Your task to perform on an android device: choose inbox layout in the gmail app Image 0: 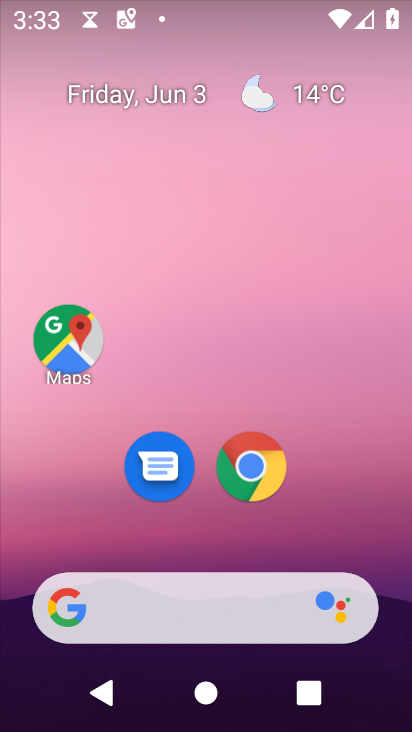
Step 0: drag from (301, 511) to (265, 124)
Your task to perform on an android device: choose inbox layout in the gmail app Image 1: 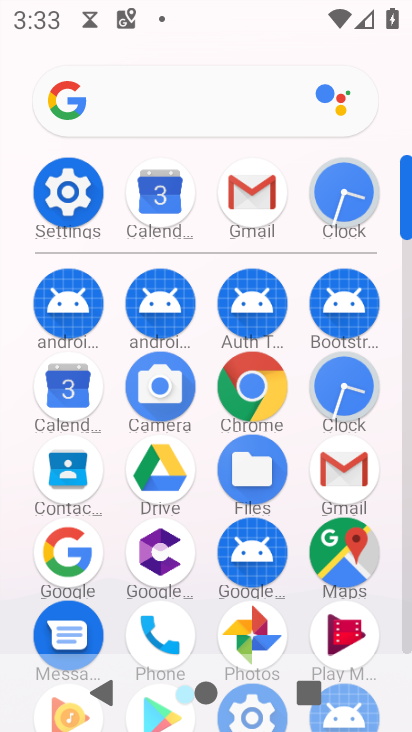
Step 1: click (248, 178)
Your task to perform on an android device: choose inbox layout in the gmail app Image 2: 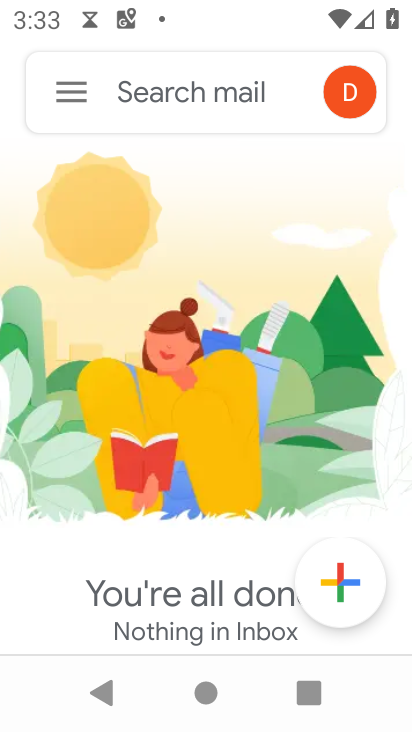
Step 2: click (80, 75)
Your task to perform on an android device: choose inbox layout in the gmail app Image 3: 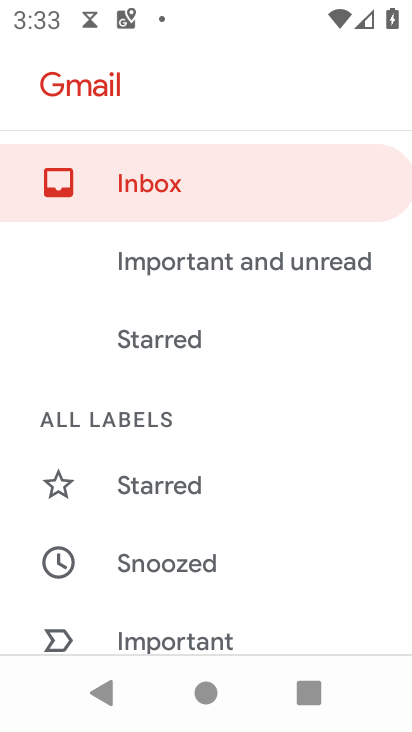
Step 3: click (246, 191)
Your task to perform on an android device: choose inbox layout in the gmail app Image 4: 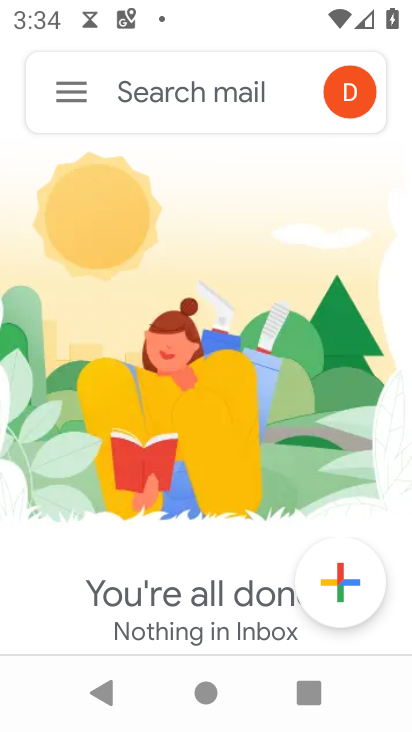
Step 4: click (83, 82)
Your task to perform on an android device: choose inbox layout in the gmail app Image 5: 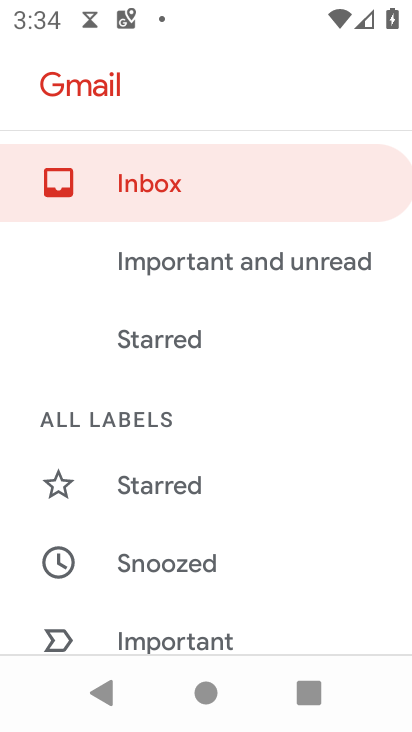
Step 5: drag from (287, 622) to (265, 295)
Your task to perform on an android device: choose inbox layout in the gmail app Image 6: 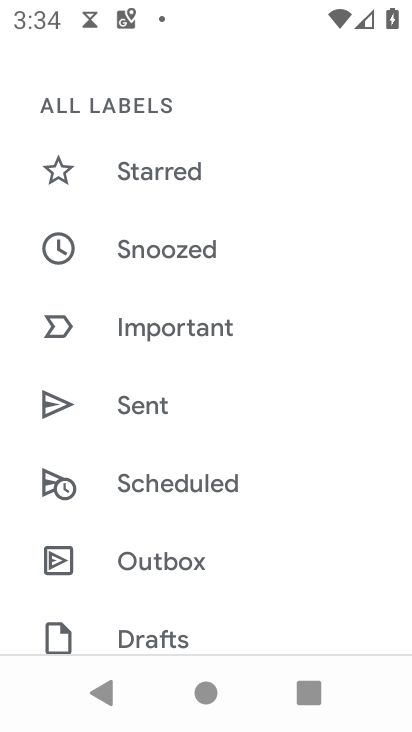
Step 6: drag from (266, 523) to (260, 11)
Your task to perform on an android device: choose inbox layout in the gmail app Image 7: 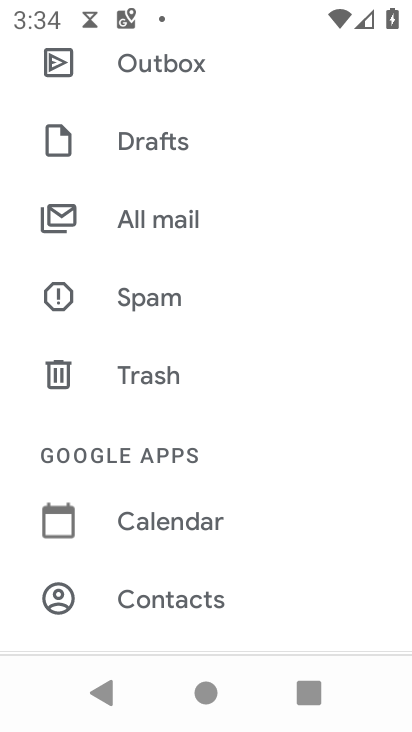
Step 7: drag from (309, 558) to (292, 100)
Your task to perform on an android device: choose inbox layout in the gmail app Image 8: 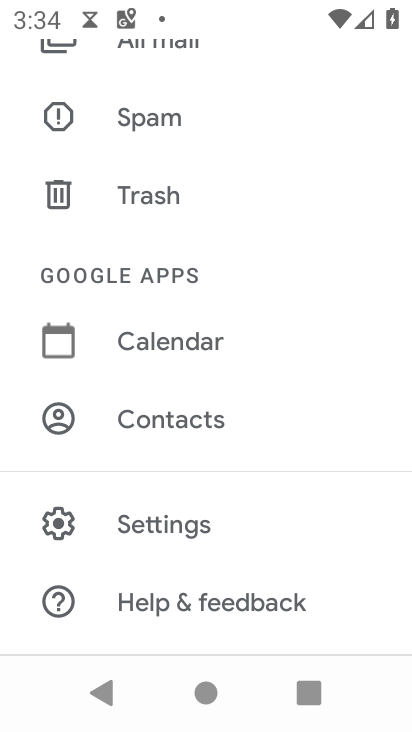
Step 8: click (241, 513)
Your task to perform on an android device: choose inbox layout in the gmail app Image 9: 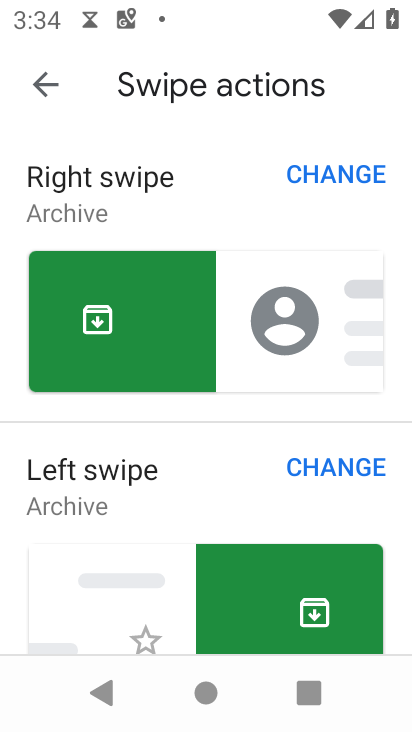
Step 9: click (34, 74)
Your task to perform on an android device: choose inbox layout in the gmail app Image 10: 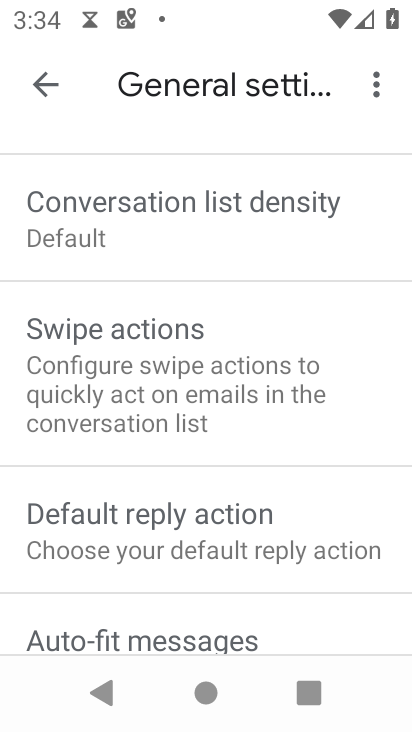
Step 10: drag from (188, 395) to (196, 142)
Your task to perform on an android device: choose inbox layout in the gmail app Image 11: 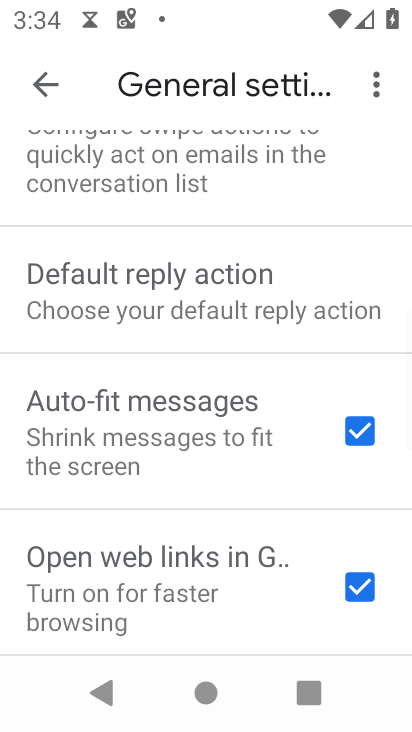
Step 11: drag from (233, 516) to (193, 163)
Your task to perform on an android device: choose inbox layout in the gmail app Image 12: 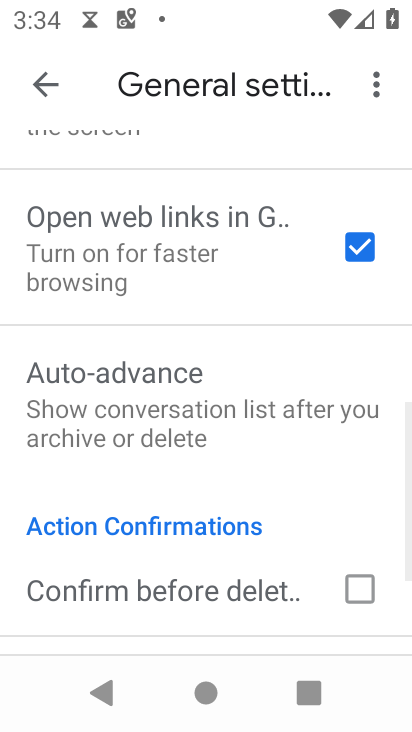
Step 12: drag from (151, 502) to (135, 214)
Your task to perform on an android device: choose inbox layout in the gmail app Image 13: 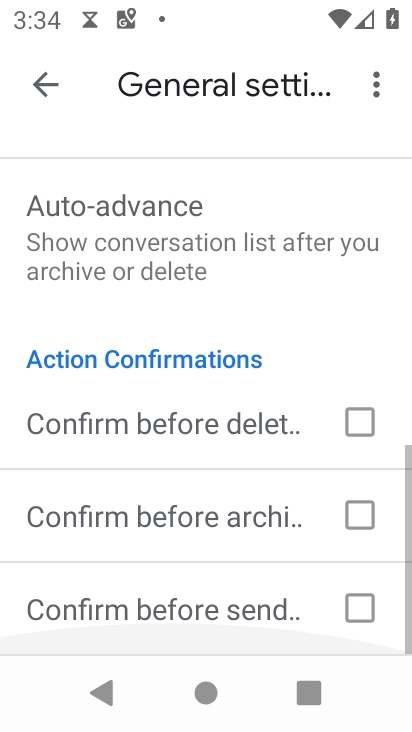
Step 13: click (136, 208)
Your task to perform on an android device: choose inbox layout in the gmail app Image 14: 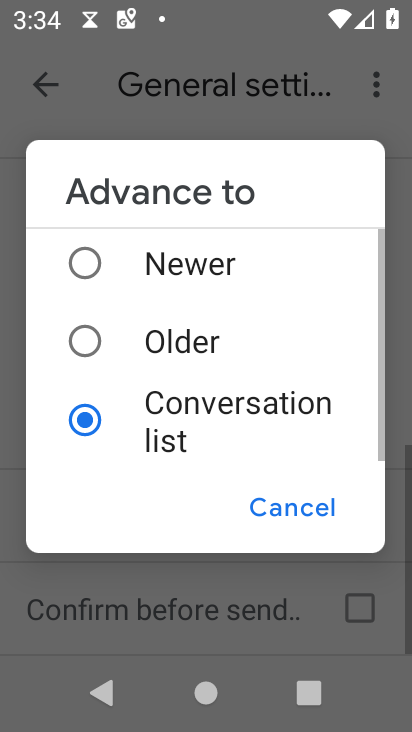
Step 14: drag from (164, 178) to (224, 543)
Your task to perform on an android device: choose inbox layout in the gmail app Image 15: 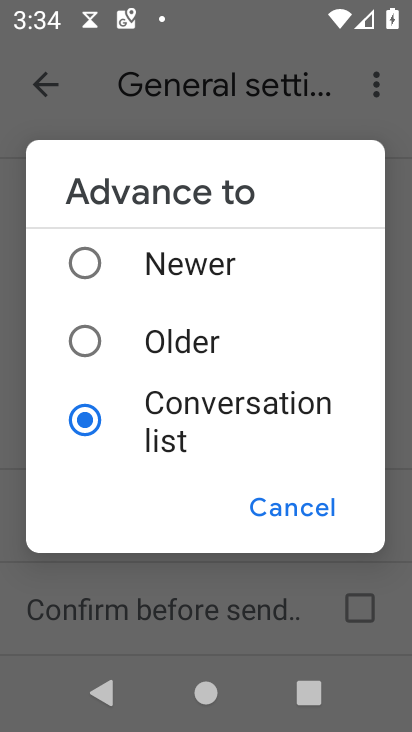
Step 15: click (328, 509)
Your task to perform on an android device: choose inbox layout in the gmail app Image 16: 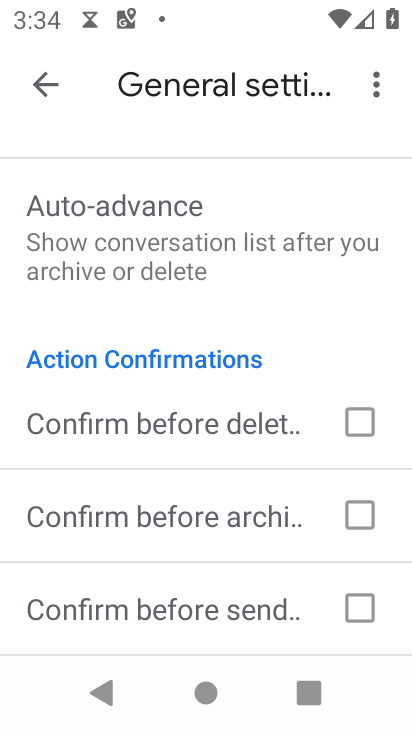
Step 16: task complete